Your task to perform on an android device: Show me the alarms in the clock app Image 0: 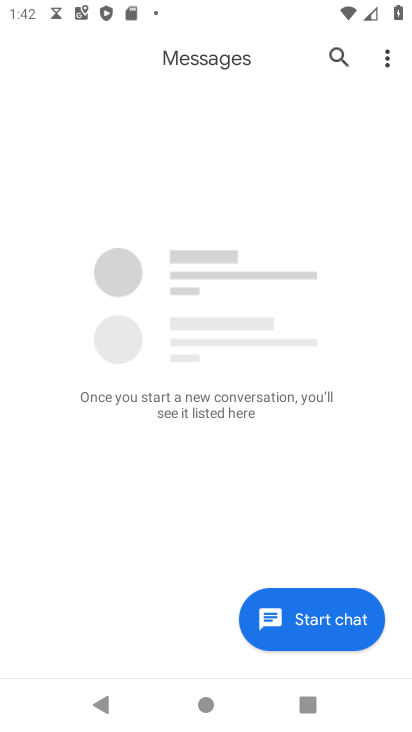
Step 0: press home button
Your task to perform on an android device: Show me the alarms in the clock app Image 1: 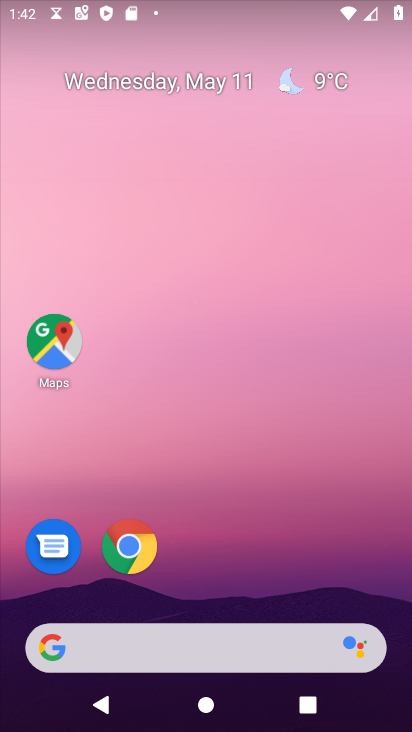
Step 1: drag from (302, 610) to (361, 4)
Your task to perform on an android device: Show me the alarms in the clock app Image 2: 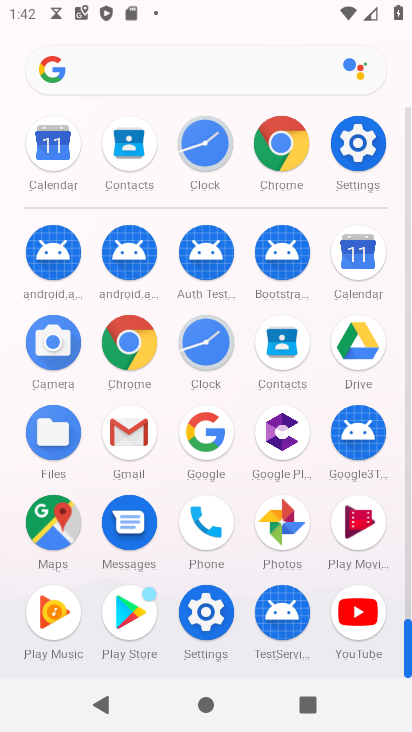
Step 2: click (208, 349)
Your task to perform on an android device: Show me the alarms in the clock app Image 3: 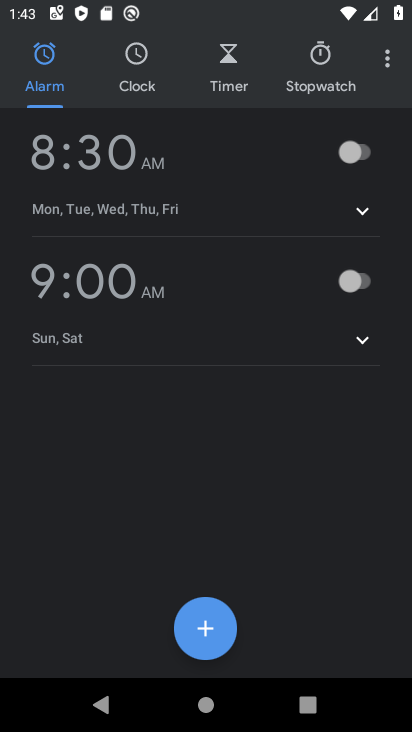
Step 3: task complete